Your task to perform on an android device: What's the weather going to be tomorrow? Image 0: 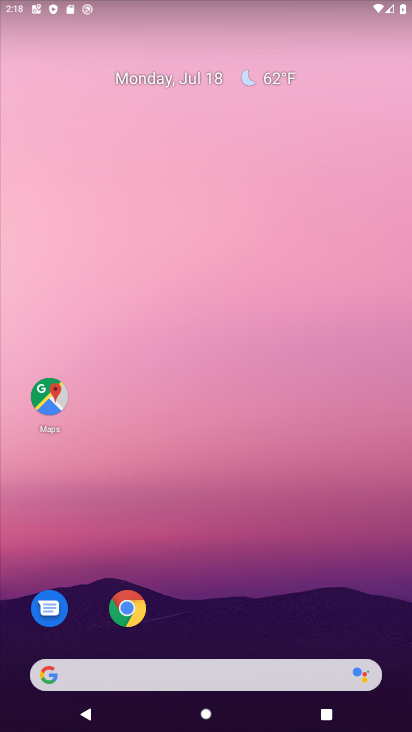
Step 0: click (260, 63)
Your task to perform on an android device: What's the weather going to be tomorrow? Image 1: 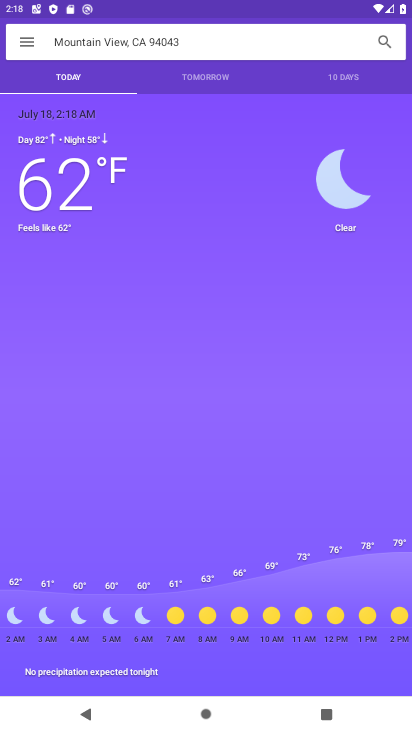
Step 1: click (212, 75)
Your task to perform on an android device: What's the weather going to be tomorrow? Image 2: 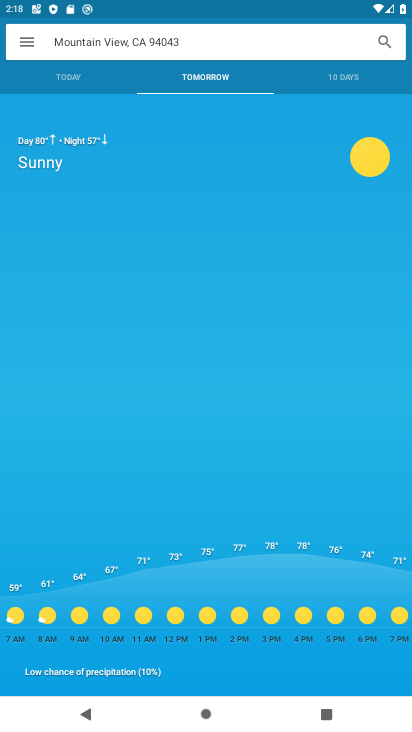
Step 2: task complete